Your task to perform on an android device: Go to Google maps Image 0: 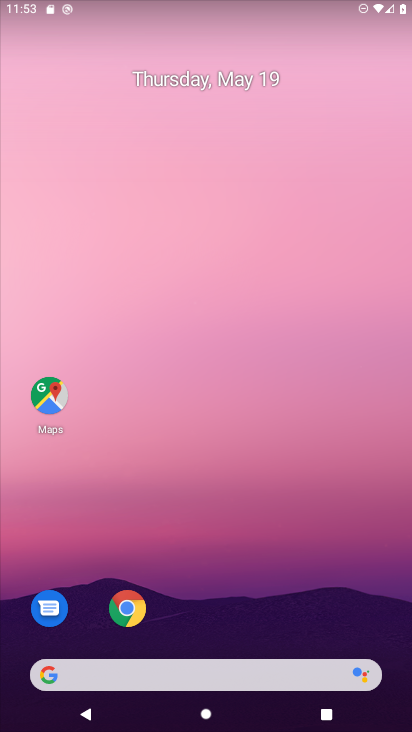
Step 0: press home button
Your task to perform on an android device: Go to Google maps Image 1: 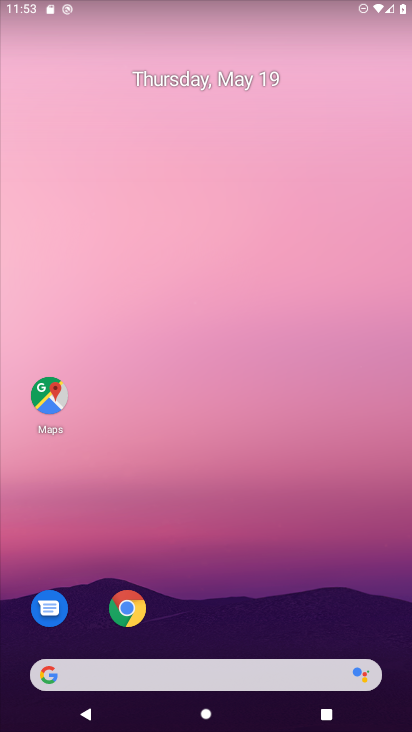
Step 1: click (69, 386)
Your task to perform on an android device: Go to Google maps Image 2: 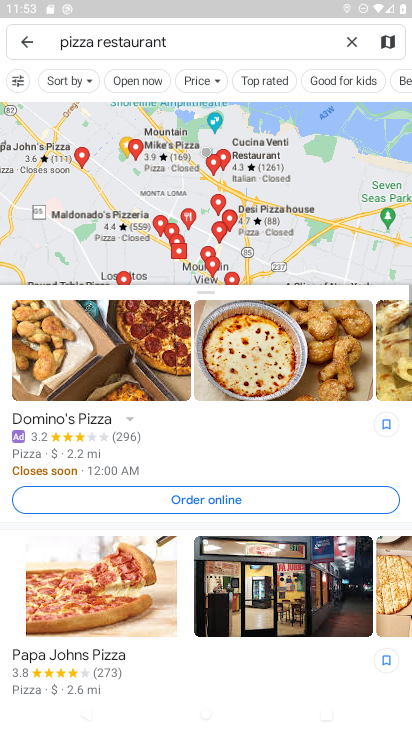
Step 2: task complete